Your task to perform on an android device: Open Wikipedia Image 0: 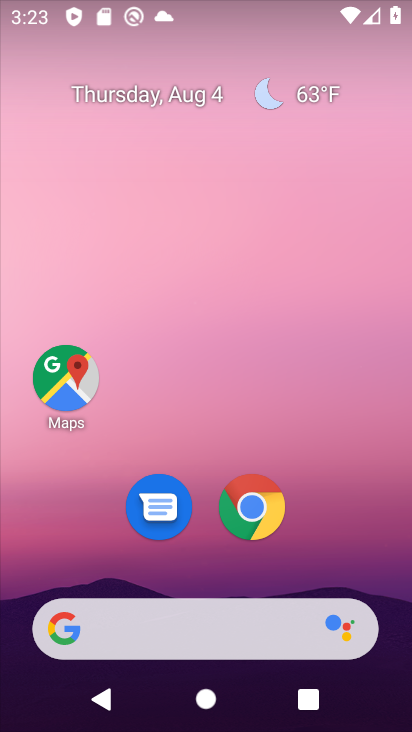
Step 0: click (164, 633)
Your task to perform on an android device: Open Wikipedia Image 1: 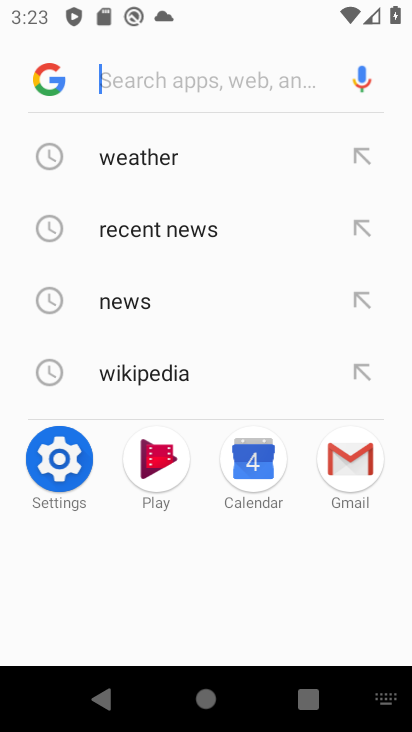
Step 1: type "Wikipedia"
Your task to perform on an android device: Open Wikipedia Image 2: 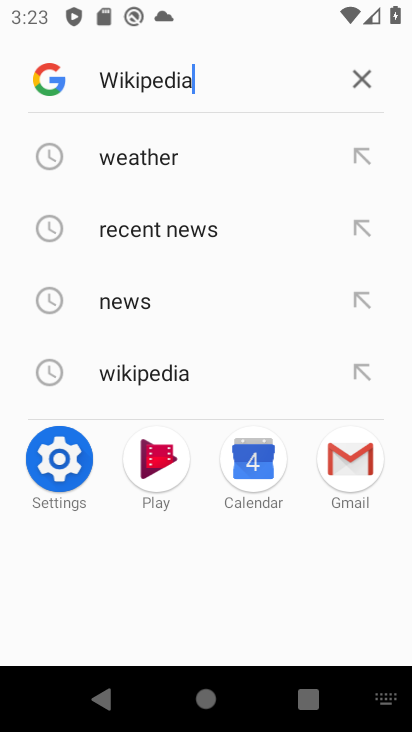
Step 2: type ""
Your task to perform on an android device: Open Wikipedia Image 3: 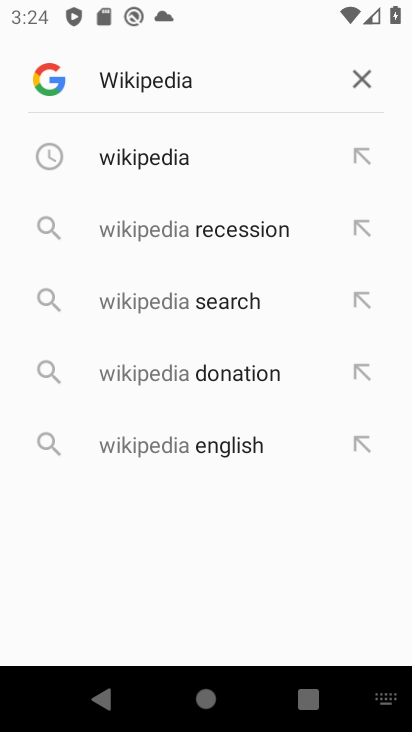
Step 3: click (177, 145)
Your task to perform on an android device: Open Wikipedia Image 4: 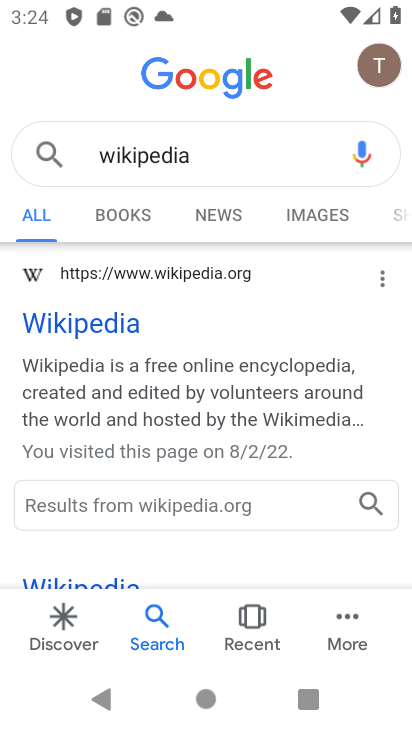
Step 4: task complete